Your task to perform on an android device: delete browsing data in the chrome app Image 0: 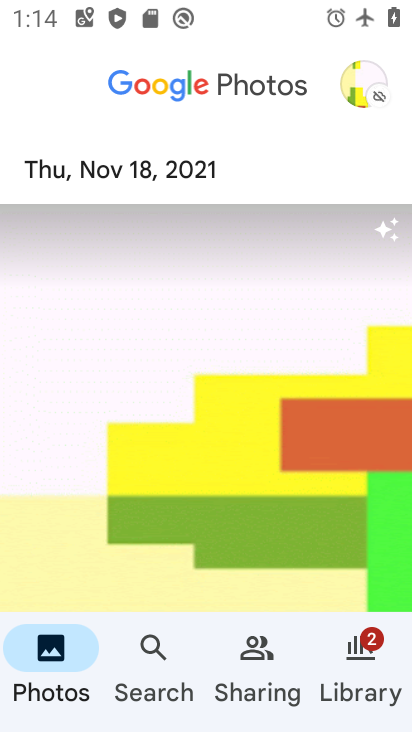
Step 0: press home button
Your task to perform on an android device: delete browsing data in the chrome app Image 1: 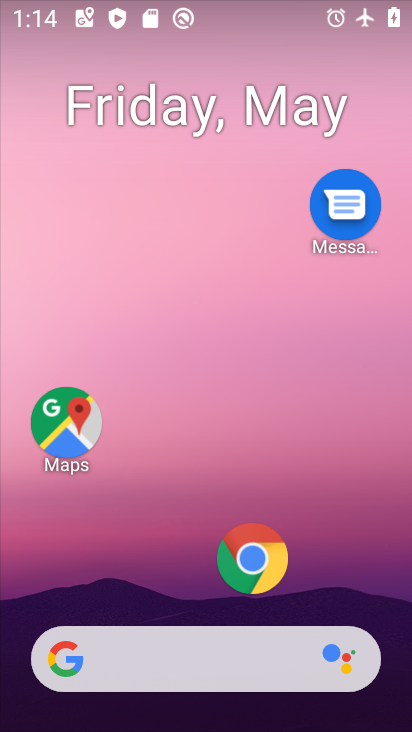
Step 1: click (266, 573)
Your task to perform on an android device: delete browsing data in the chrome app Image 2: 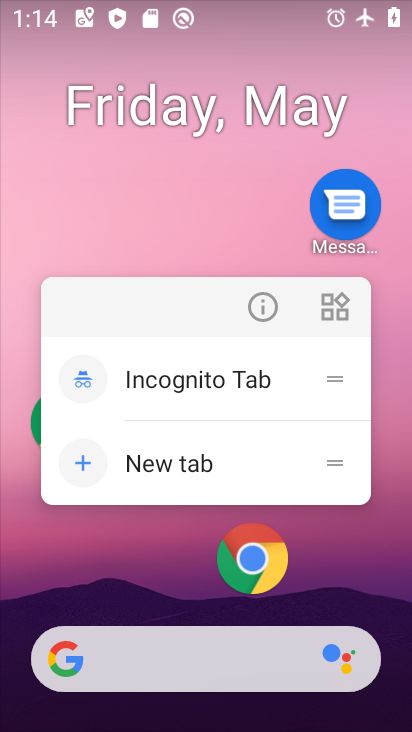
Step 2: click (262, 571)
Your task to perform on an android device: delete browsing data in the chrome app Image 3: 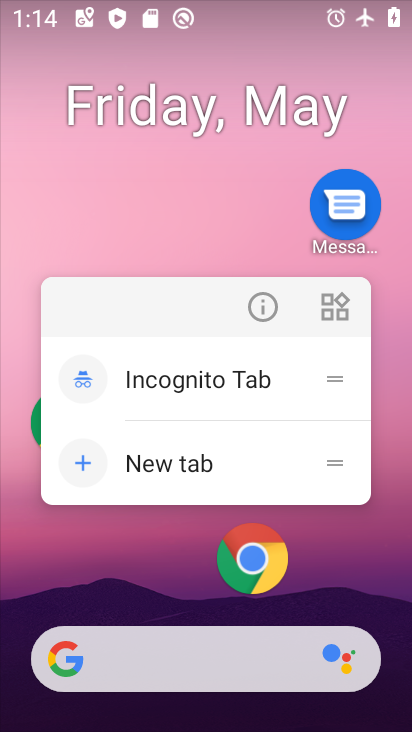
Step 3: click (250, 556)
Your task to perform on an android device: delete browsing data in the chrome app Image 4: 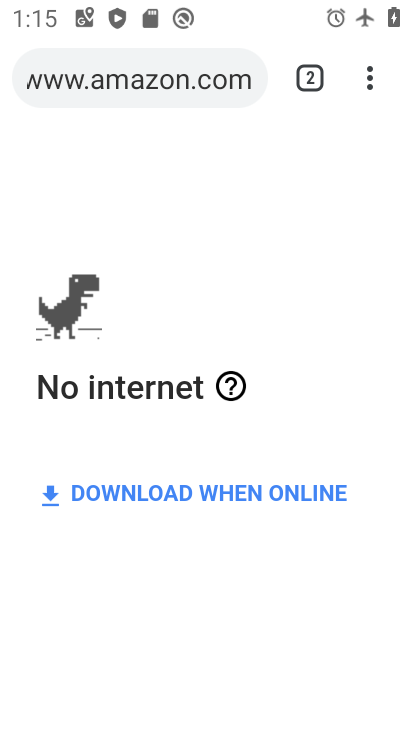
Step 4: click (375, 91)
Your task to perform on an android device: delete browsing data in the chrome app Image 5: 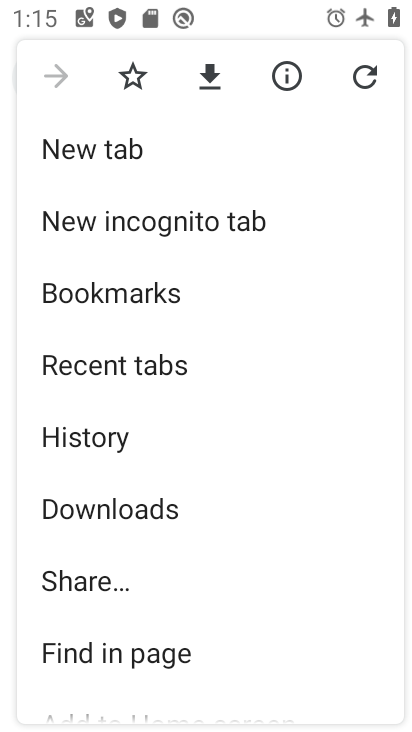
Step 5: click (163, 435)
Your task to perform on an android device: delete browsing data in the chrome app Image 6: 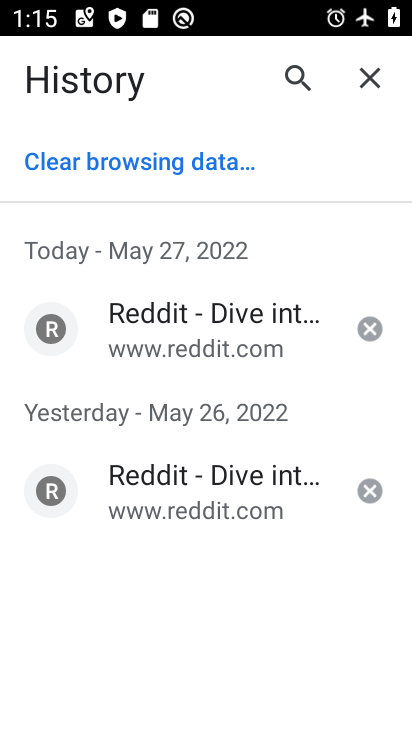
Step 6: click (189, 168)
Your task to perform on an android device: delete browsing data in the chrome app Image 7: 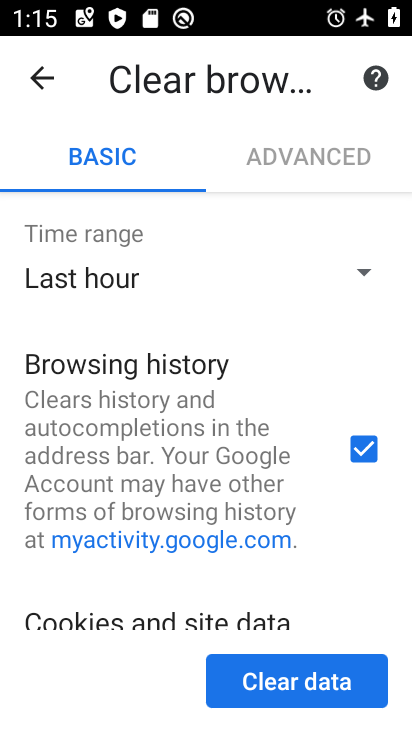
Step 7: click (294, 674)
Your task to perform on an android device: delete browsing data in the chrome app Image 8: 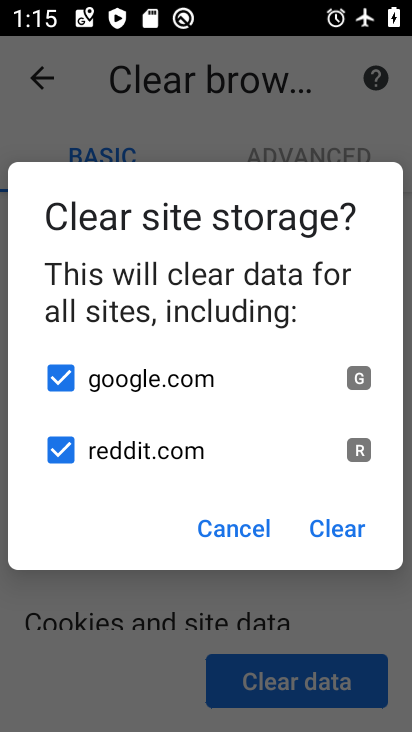
Step 8: click (344, 535)
Your task to perform on an android device: delete browsing data in the chrome app Image 9: 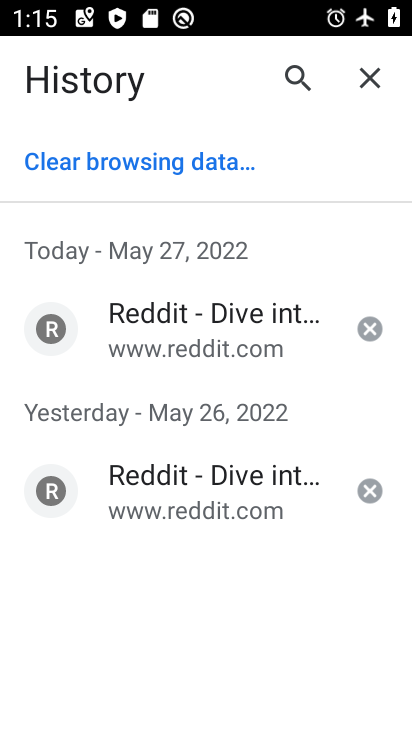
Step 9: task complete